Your task to perform on an android device: check out phone information Image 0: 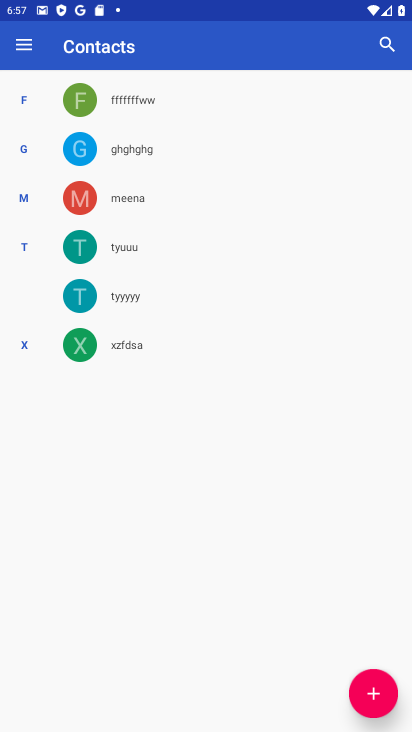
Step 0: press home button
Your task to perform on an android device: check out phone information Image 1: 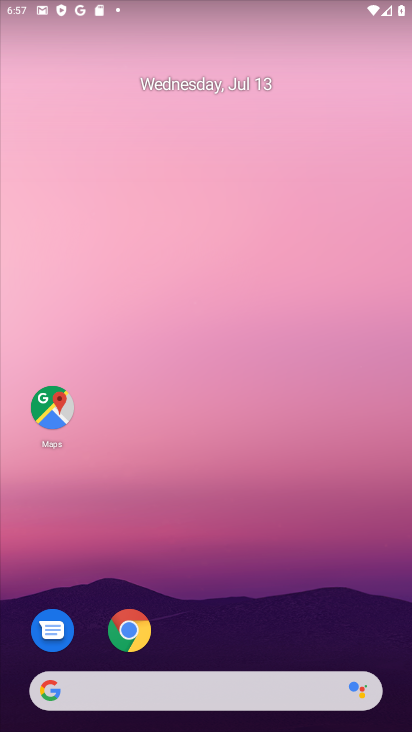
Step 1: drag from (372, 605) to (204, 180)
Your task to perform on an android device: check out phone information Image 2: 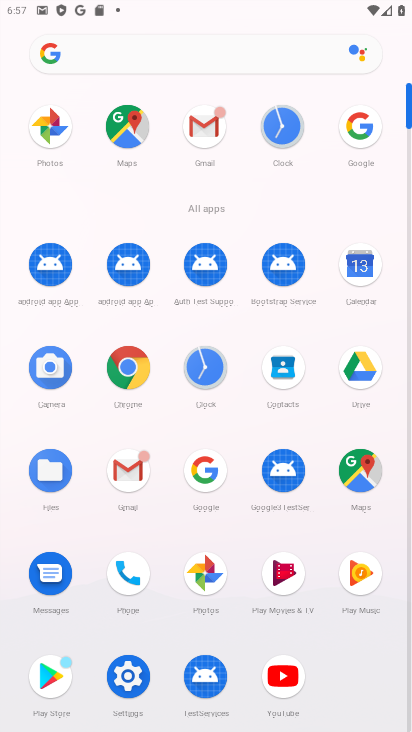
Step 2: click (132, 666)
Your task to perform on an android device: check out phone information Image 3: 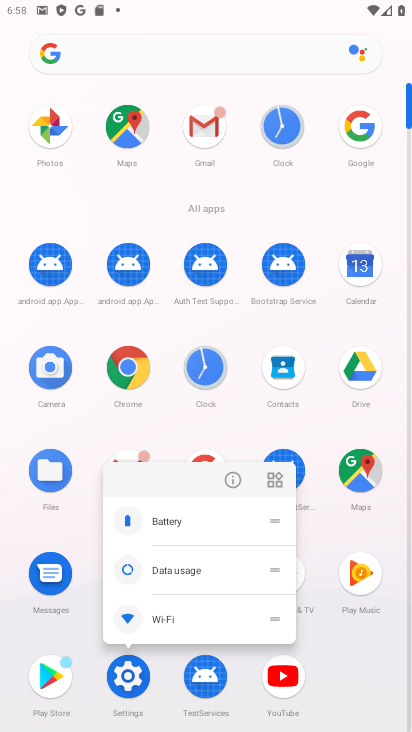
Step 3: click (118, 667)
Your task to perform on an android device: check out phone information Image 4: 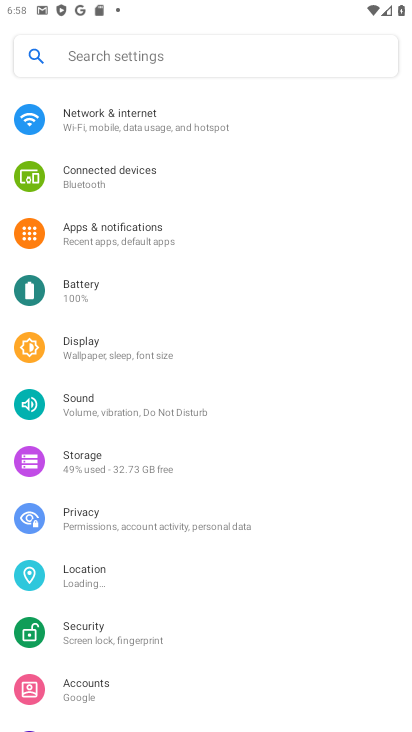
Step 4: task complete